Your task to perform on an android device: Go to settings Image 0: 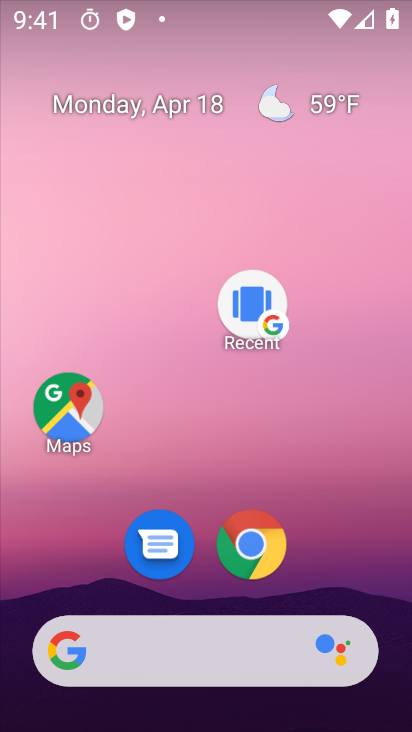
Step 0: drag from (373, 563) to (354, 152)
Your task to perform on an android device: Go to settings Image 1: 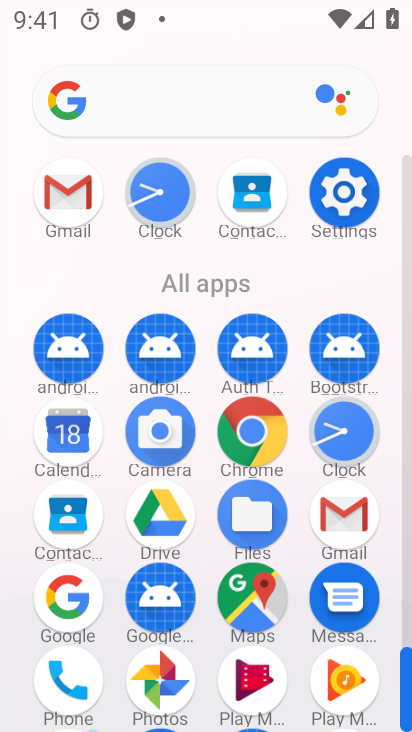
Step 1: click (342, 188)
Your task to perform on an android device: Go to settings Image 2: 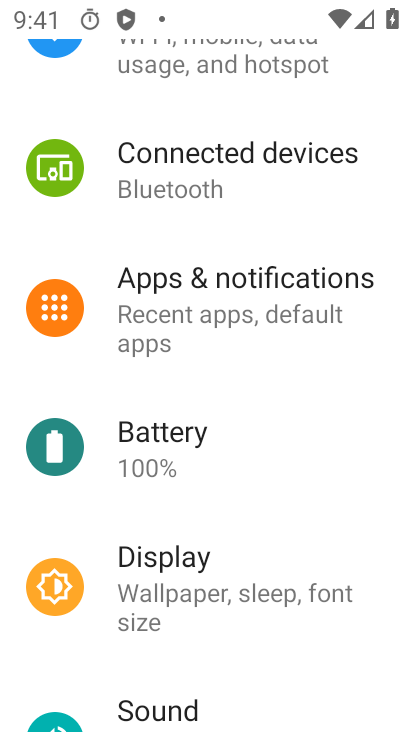
Step 2: task complete